Your task to perform on an android device: Open the stopwatch Image 0: 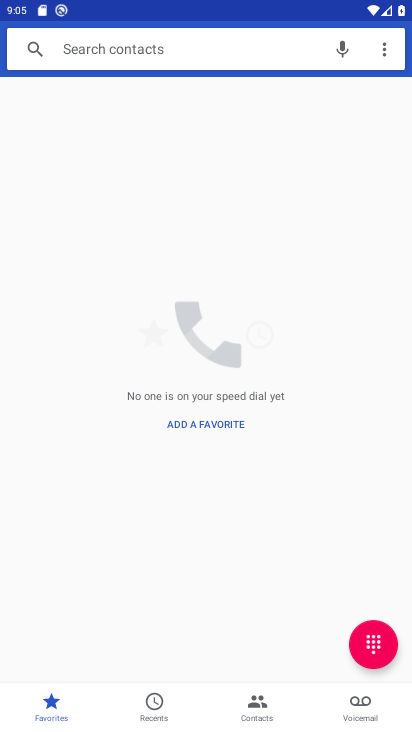
Step 0: drag from (60, 681) to (338, 83)
Your task to perform on an android device: Open the stopwatch Image 1: 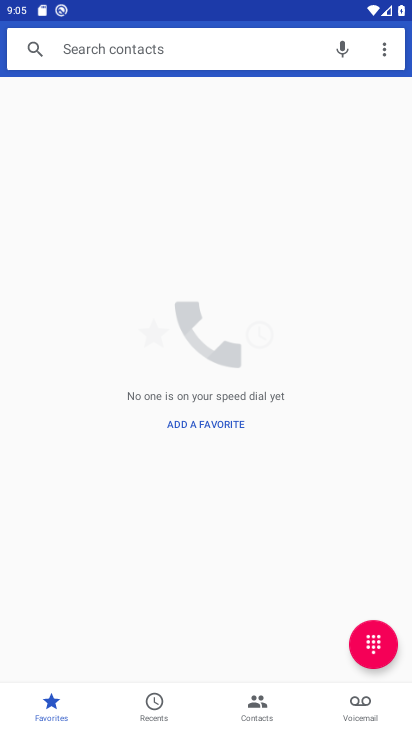
Step 1: press home button
Your task to perform on an android device: Open the stopwatch Image 2: 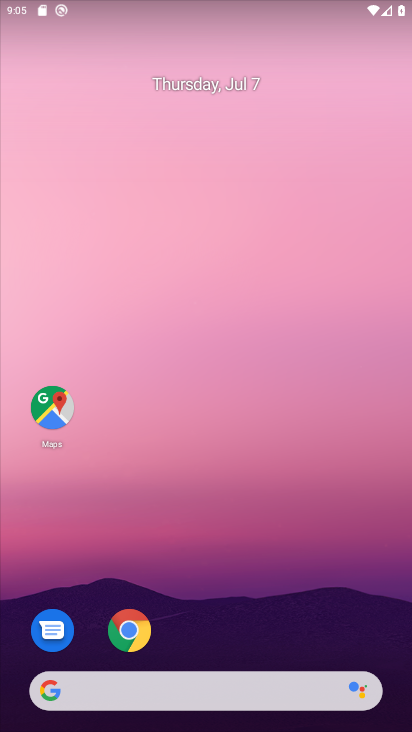
Step 2: drag from (29, 712) to (328, 24)
Your task to perform on an android device: Open the stopwatch Image 3: 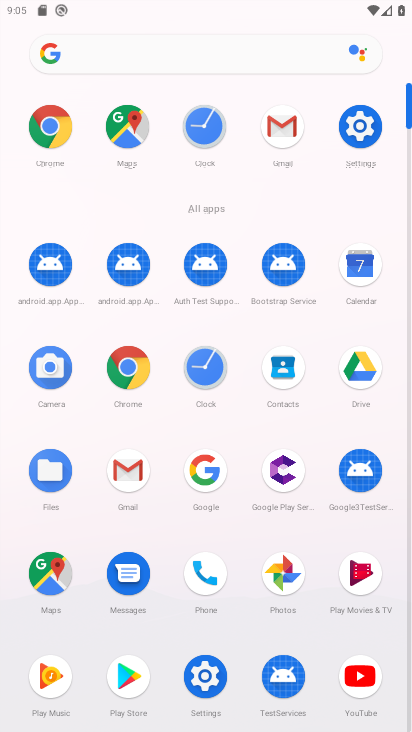
Step 3: click (197, 369)
Your task to perform on an android device: Open the stopwatch Image 4: 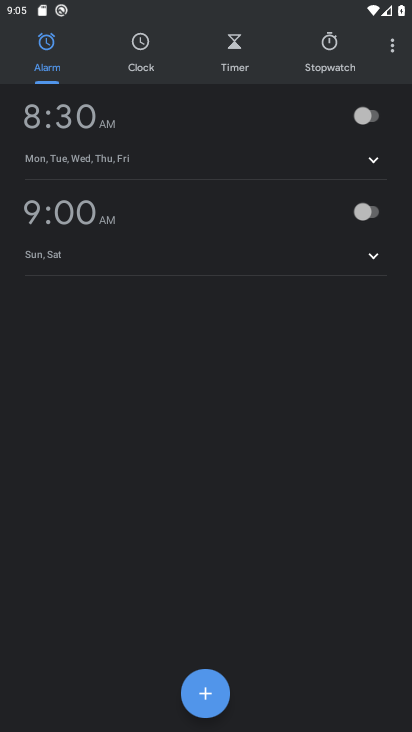
Step 4: click (316, 42)
Your task to perform on an android device: Open the stopwatch Image 5: 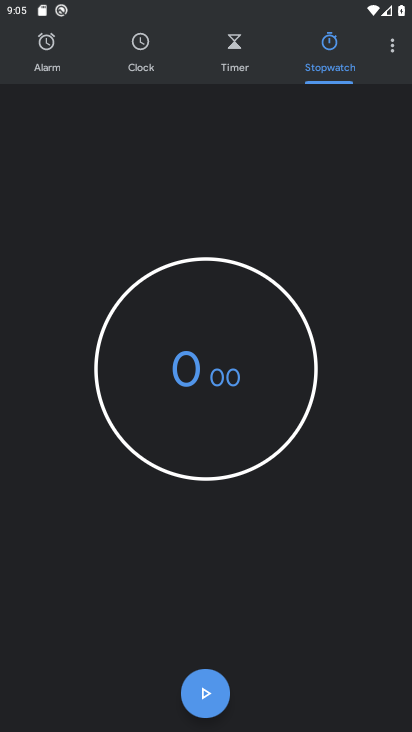
Step 5: click (202, 694)
Your task to perform on an android device: Open the stopwatch Image 6: 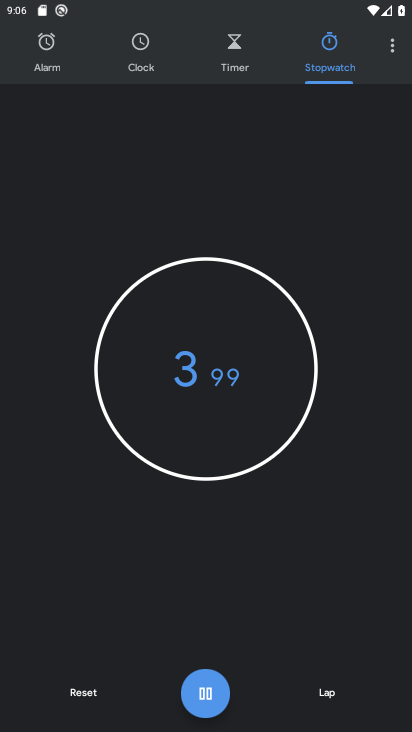
Step 6: click (202, 687)
Your task to perform on an android device: Open the stopwatch Image 7: 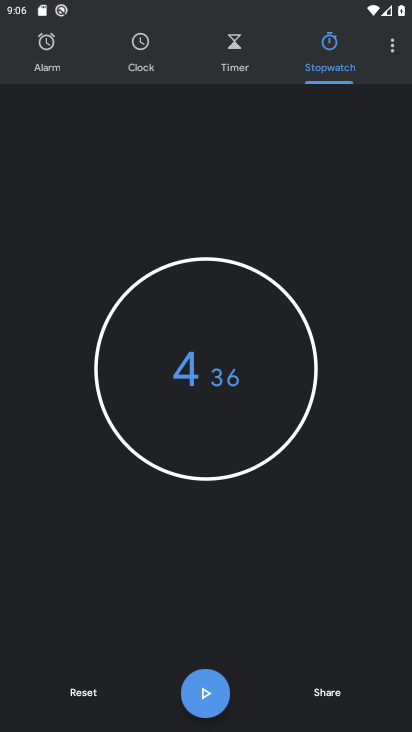
Step 7: task complete